Your task to perform on an android device: turn off picture-in-picture Image 0: 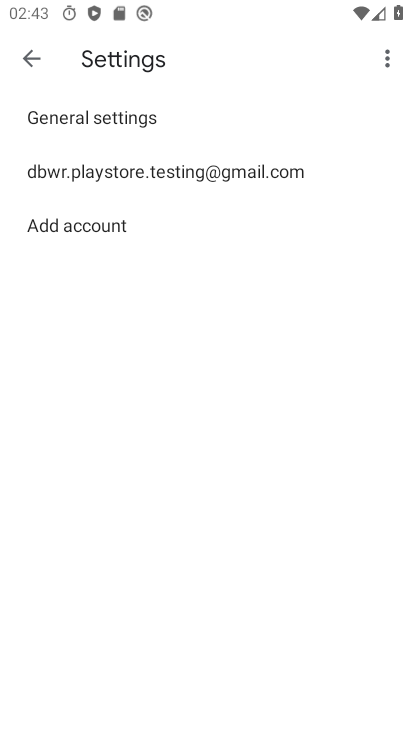
Step 0: press home button
Your task to perform on an android device: turn off picture-in-picture Image 1: 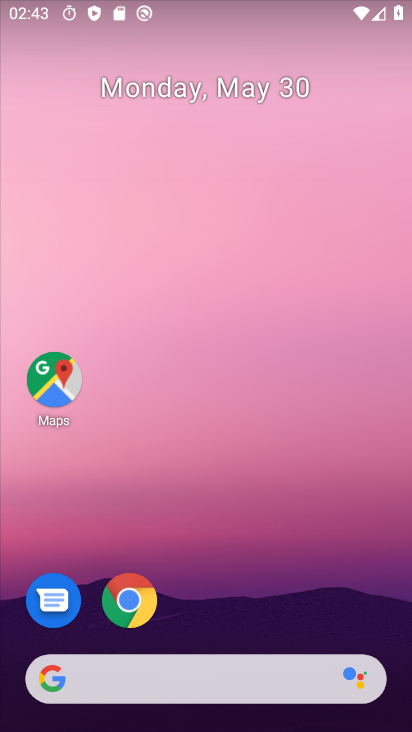
Step 1: drag from (244, 608) to (293, 38)
Your task to perform on an android device: turn off picture-in-picture Image 2: 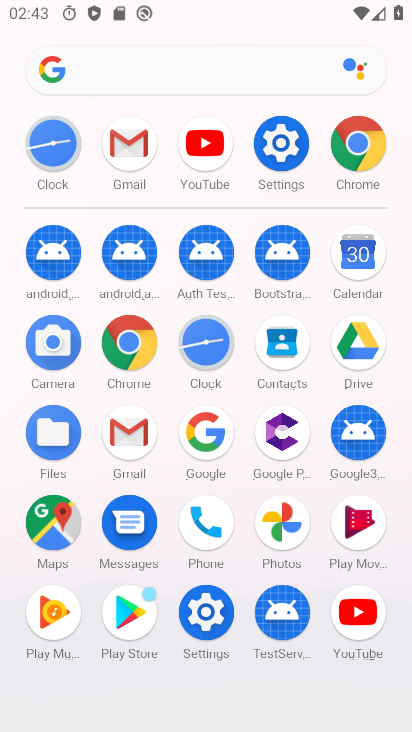
Step 2: click (281, 149)
Your task to perform on an android device: turn off picture-in-picture Image 3: 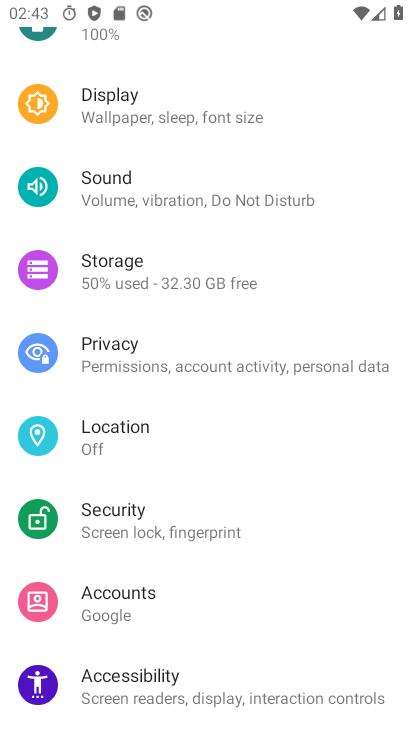
Step 3: drag from (256, 111) to (237, 463)
Your task to perform on an android device: turn off picture-in-picture Image 4: 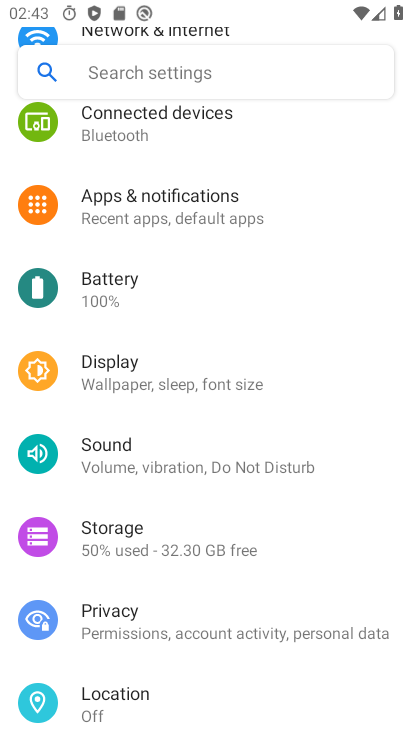
Step 4: click (207, 217)
Your task to perform on an android device: turn off picture-in-picture Image 5: 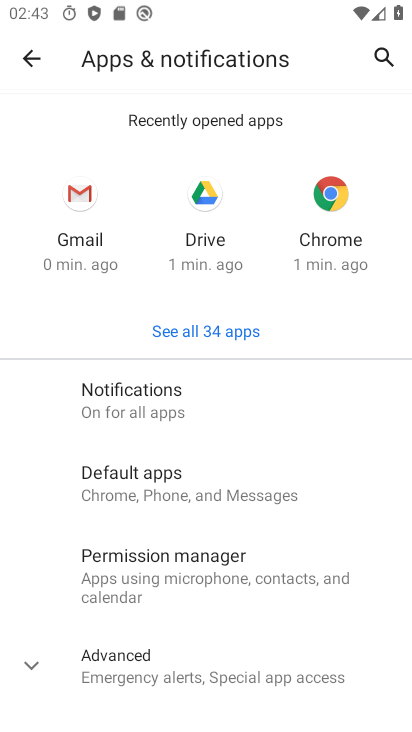
Step 5: click (203, 666)
Your task to perform on an android device: turn off picture-in-picture Image 6: 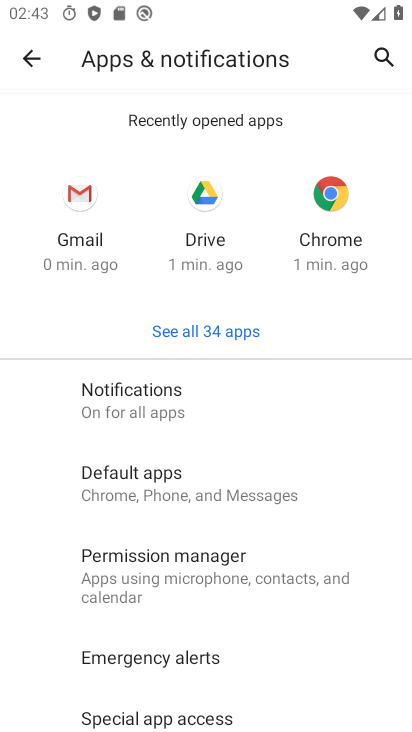
Step 6: click (201, 710)
Your task to perform on an android device: turn off picture-in-picture Image 7: 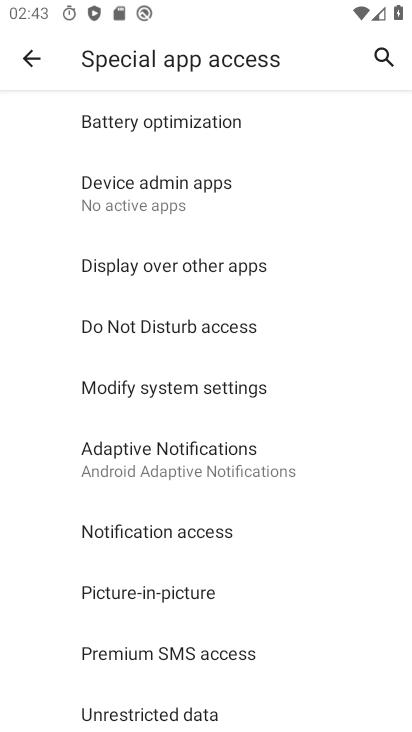
Step 7: click (174, 591)
Your task to perform on an android device: turn off picture-in-picture Image 8: 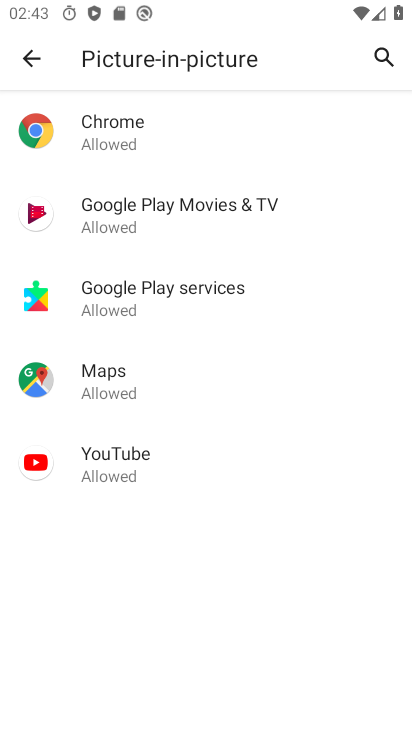
Step 8: click (146, 136)
Your task to perform on an android device: turn off picture-in-picture Image 9: 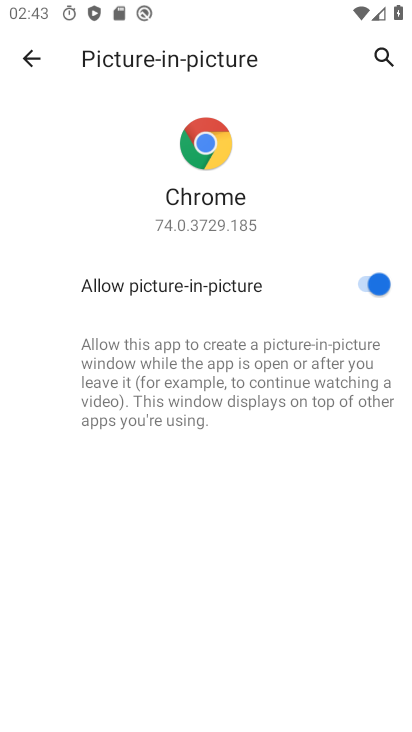
Step 9: click (364, 281)
Your task to perform on an android device: turn off picture-in-picture Image 10: 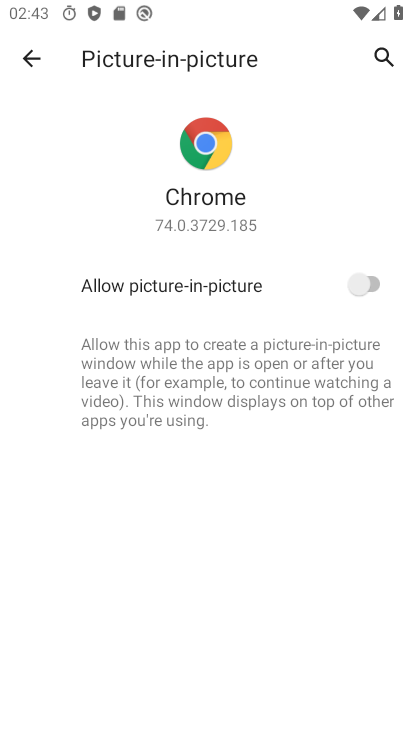
Step 10: click (27, 60)
Your task to perform on an android device: turn off picture-in-picture Image 11: 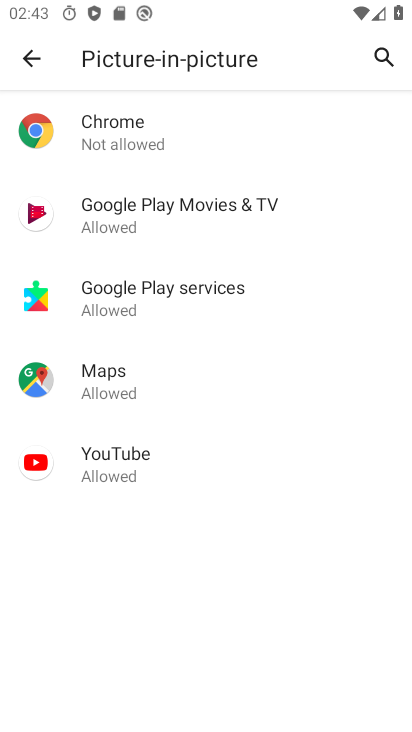
Step 11: click (186, 214)
Your task to perform on an android device: turn off picture-in-picture Image 12: 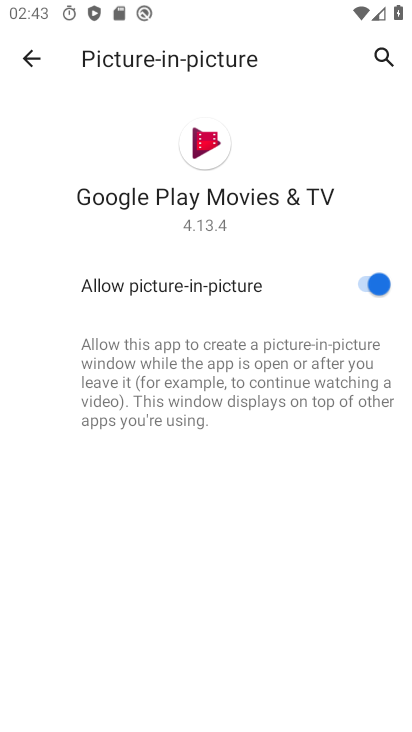
Step 12: click (363, 276)
Your task to perform on an android device: turn off picture-in-picture Image 13: 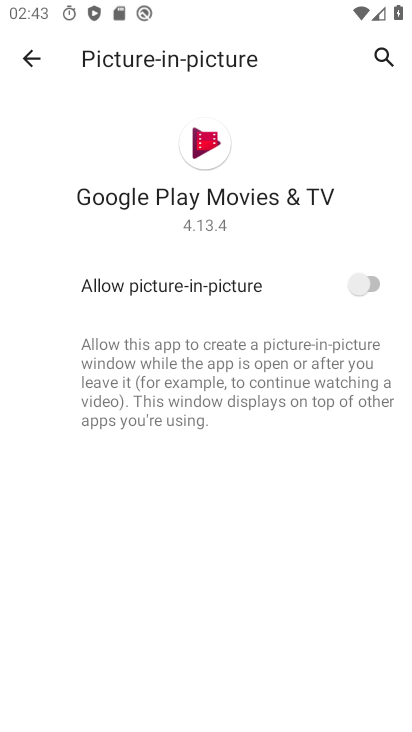
Step 13: click (37, 58)
Your task to perform on an android device: turn off picture-in-picture Image 14: 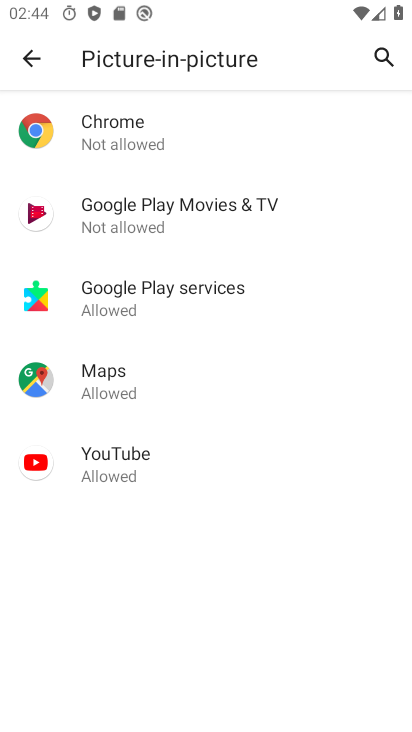
Step 14: click (161, 310)
Your task to perform on an android device: turn off picture-in-picture Image 15: 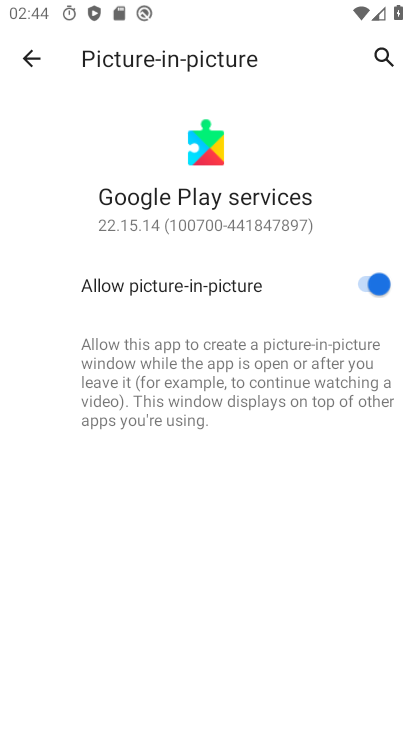
Step 15: click (361, 278)
Your task to perform on an android device: turn off picture-in-picture Image 16: 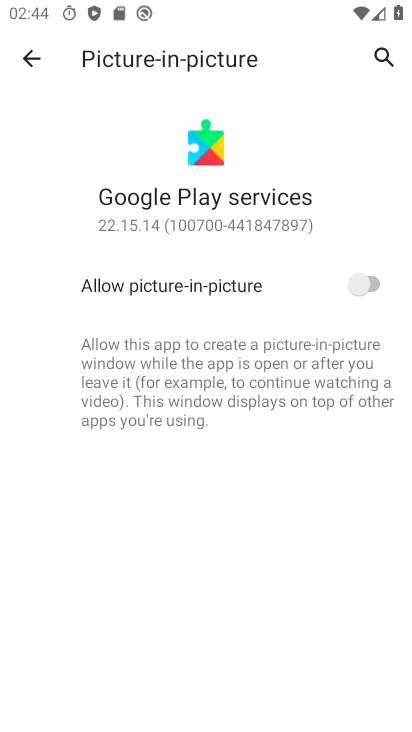
Step 16: click (39, 55)
Your task to perform on an android device: turn off picture-in-picture Image 17: 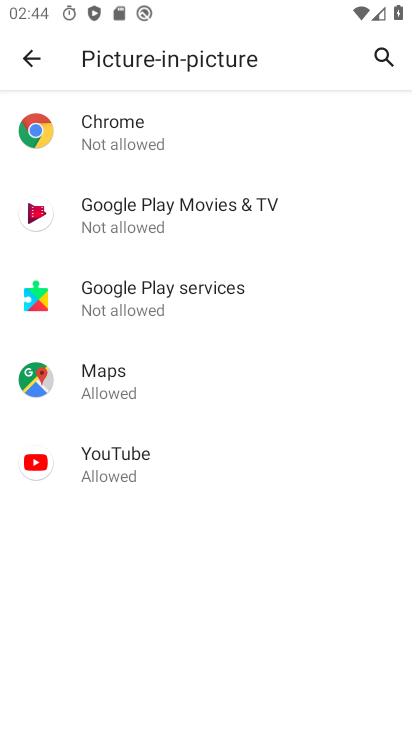
Step 17: click (137, 383)
Your task to perform on an android device: turn off picture-in-picture Image 18: 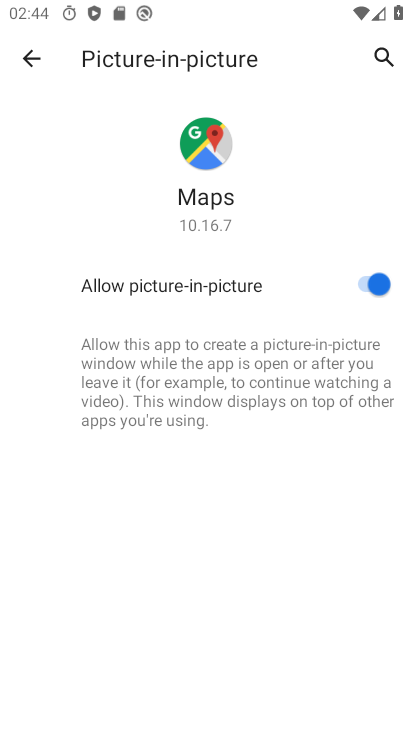
Step 18: click (359, 286)
Your task to perform on an android device: turn off picture-in-picture Image 19: 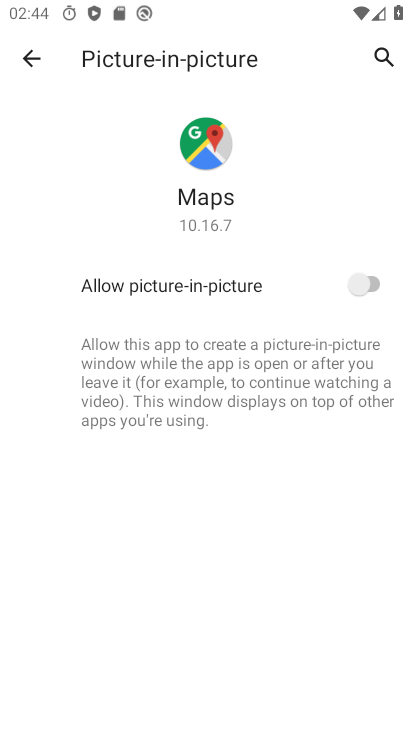
Step 19: click (28, 57)
Your task to perform on an android device: turn off picture-in-picture Image 20: 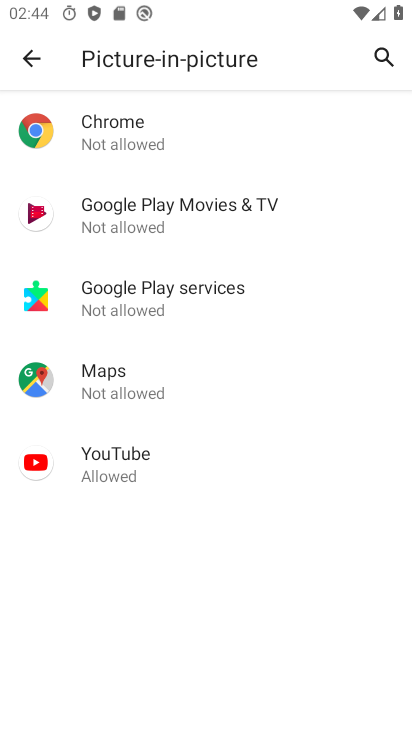
Step 20: click (110, 464)
Your task to perform on an android device: turn off picture-in-picture Image 21: 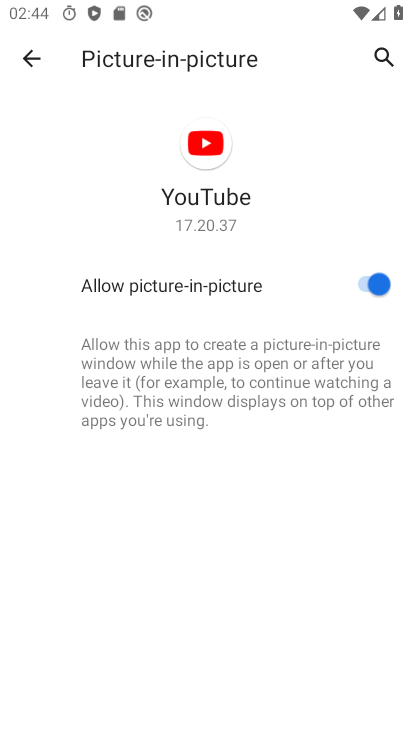
Step 21: click (364, 284)
Your task to perform on an android device: turn off picture-in-picture Image 22: 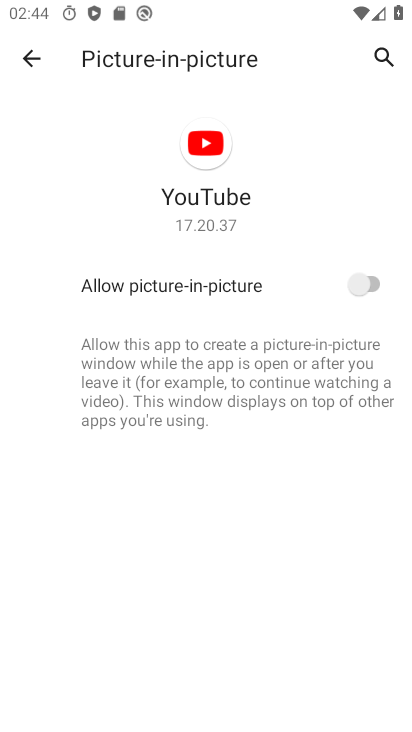
Step 22: click (37, 58)
Your task to perform on an android device: turn off picture-in-picture Image 23: 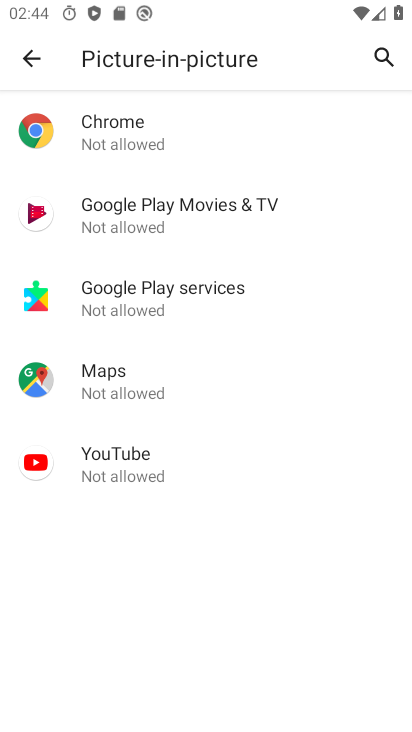
Step 23: task complete